Your task to perform on an android device: Open settings on Google Maps Image 0: 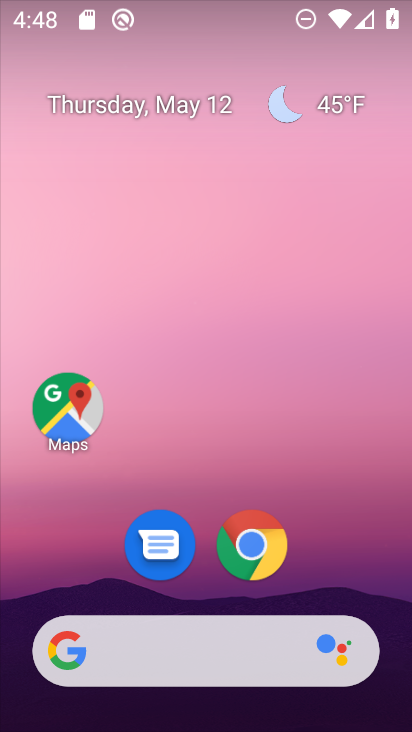
Step 0: drag from (353, 536) to (301, 75)
Your task to perform on an android device: Open settings on Google Maps Image 1: 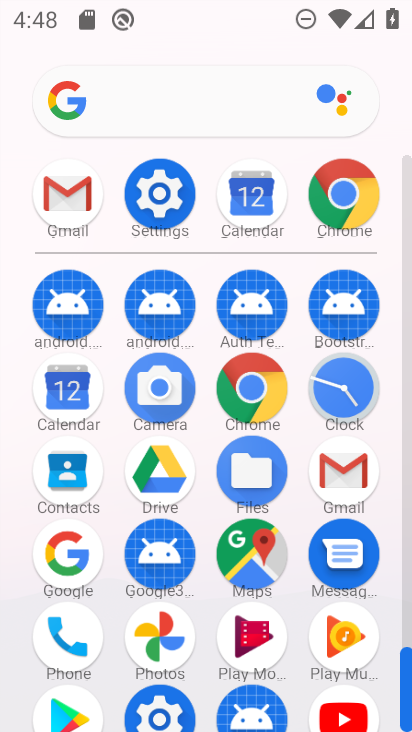
Step 1: click (259, 554)
Your task to perform on an android device: Open settings on Google Maps Image 2: 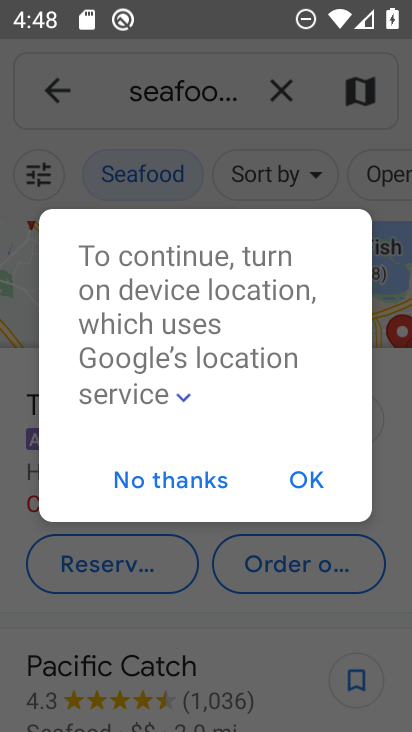
Step 2: click (310, 485)
Your task to perform on an android device: Open settings on Google Maps Image 3: 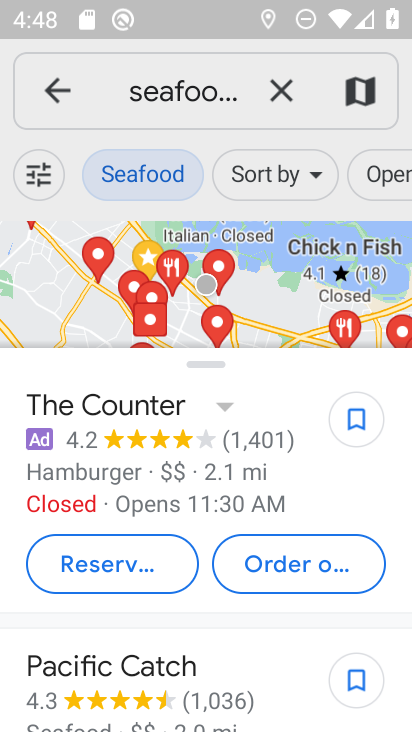
Step 3: task complete